Your task to perform on an android device: toggle improve location accuracy Image 0: 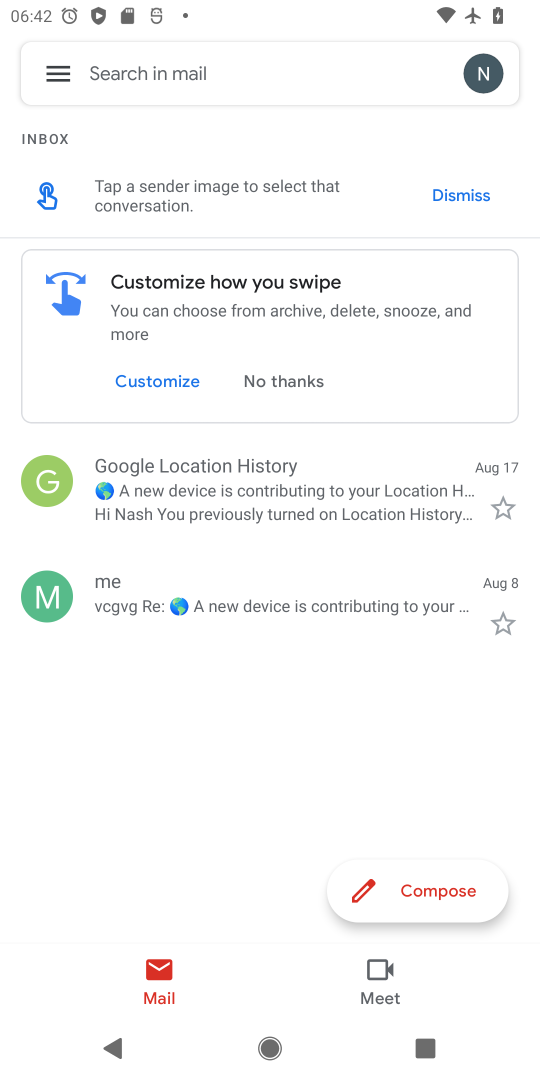
Step 0: press home button
Your task to perform on an android device: toggle improve location accuracy Image 1: 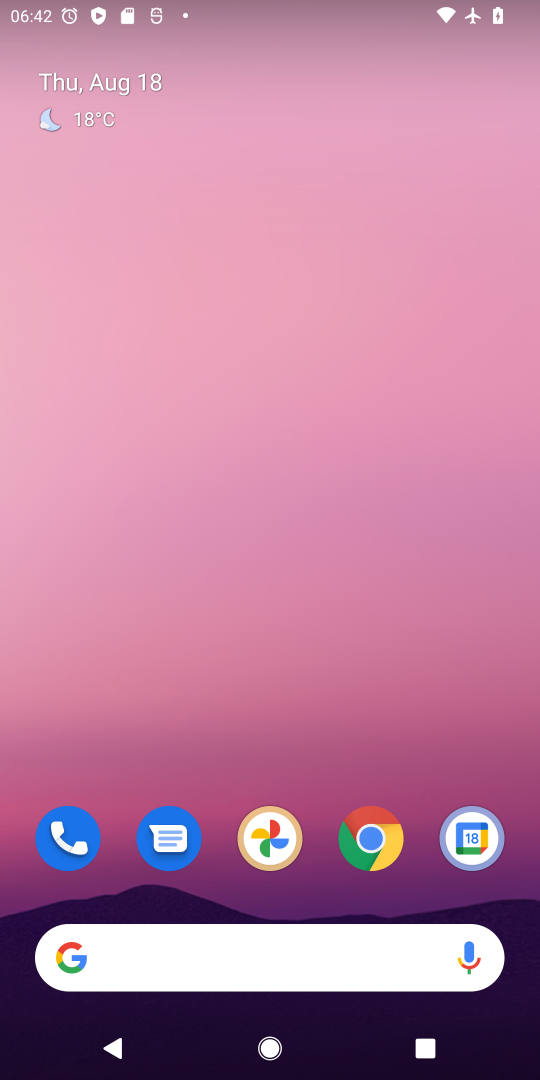
Step 1: drag from (342, 893) to (242, 42)
Your task to perform on an android device: toggle improve location accuracy Image 2: 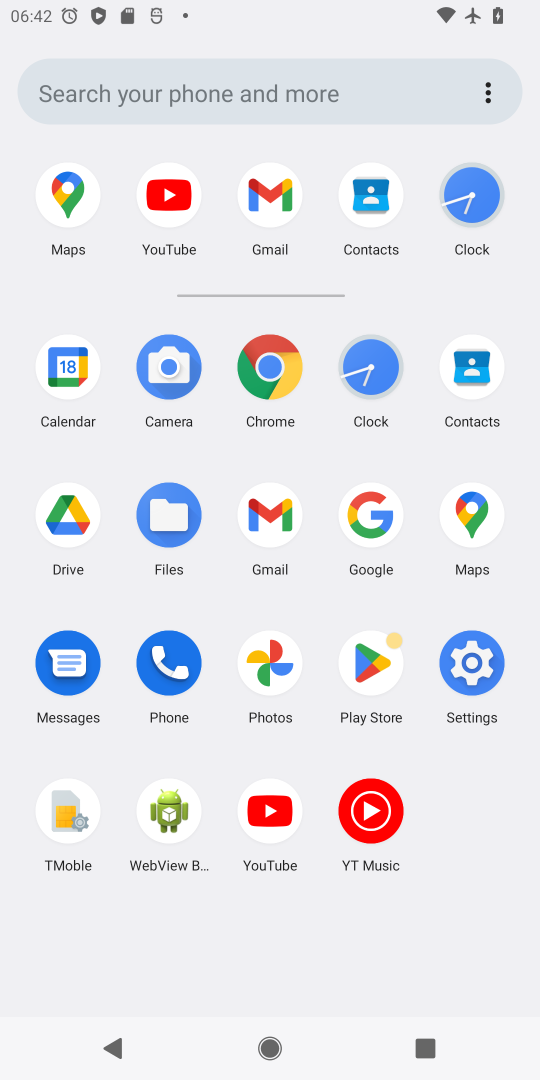
Step 2: click (472, 676)
Your task to perform on an android device: toggle improve location accuracy Image 3: 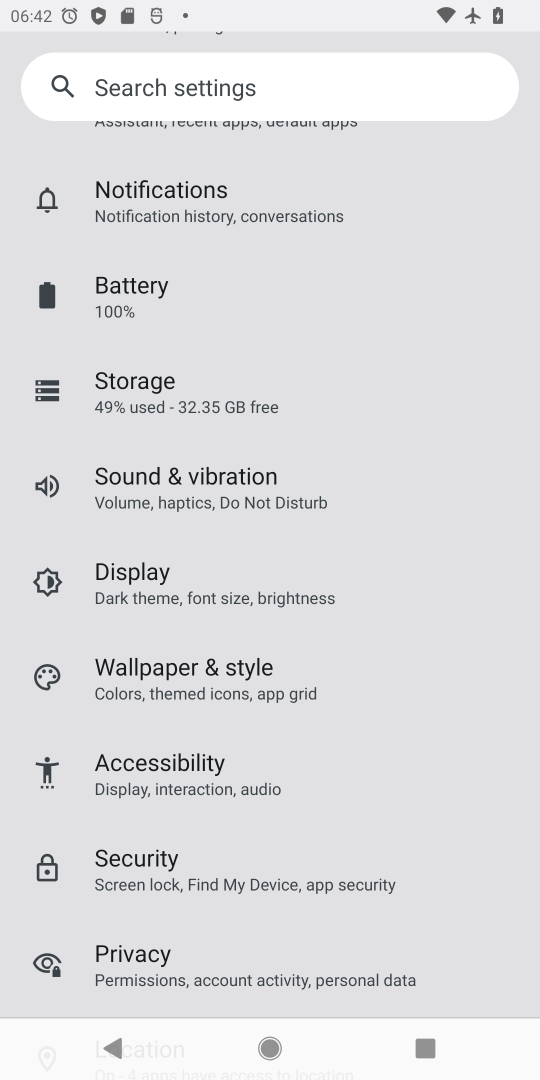
Step 3: drag from (419, 318) to (247, 215)
Your task to perform on an android device: toggle improve location accuracy Image 4: 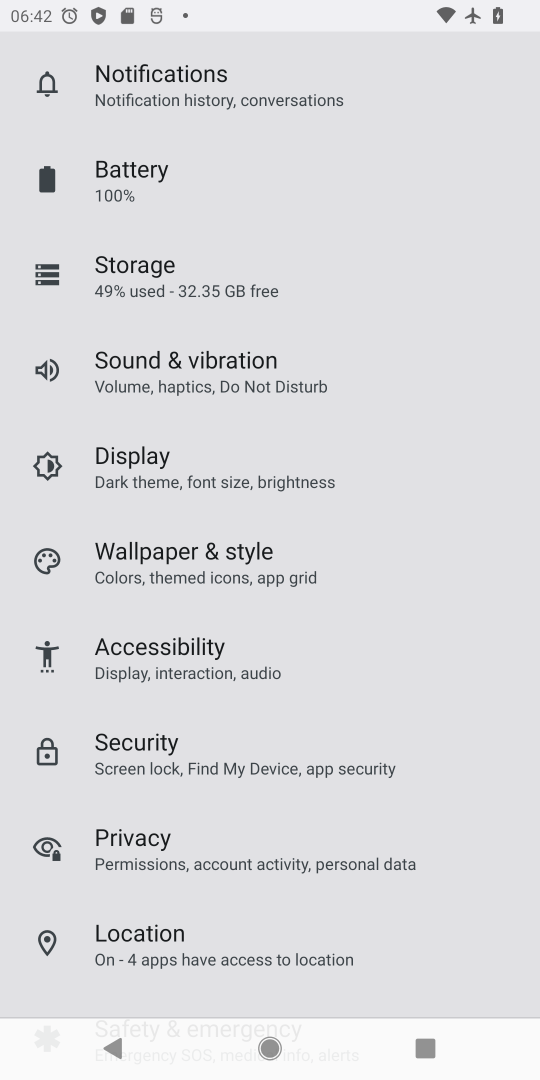
Step 4: click (135, 940)
Your task to perform on an android device: toggle improve location accuracy Image 5: 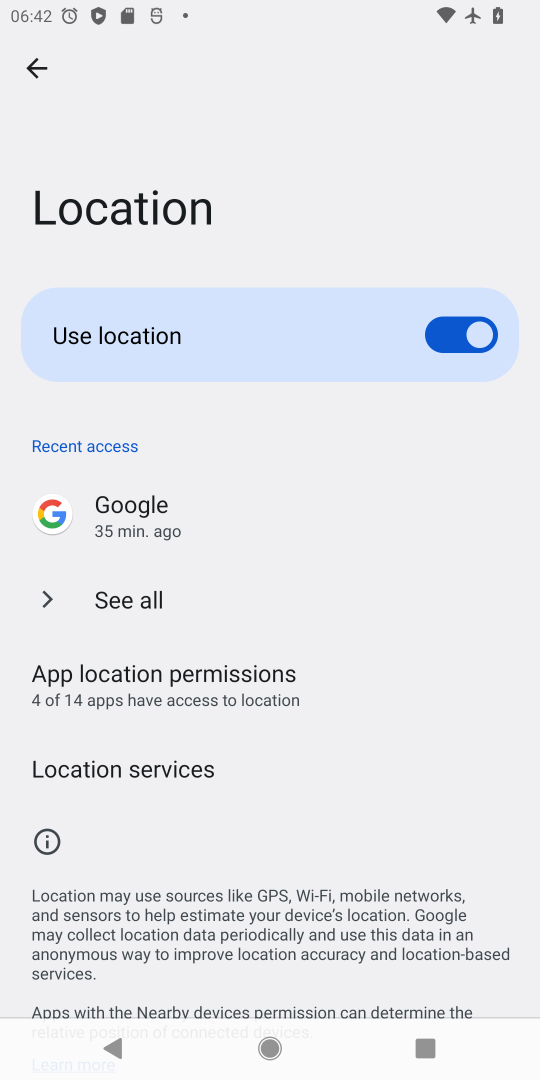
Step 5: click (117, 769)
Your task to perform on an android device: toggle improve location accuracy Image 6: 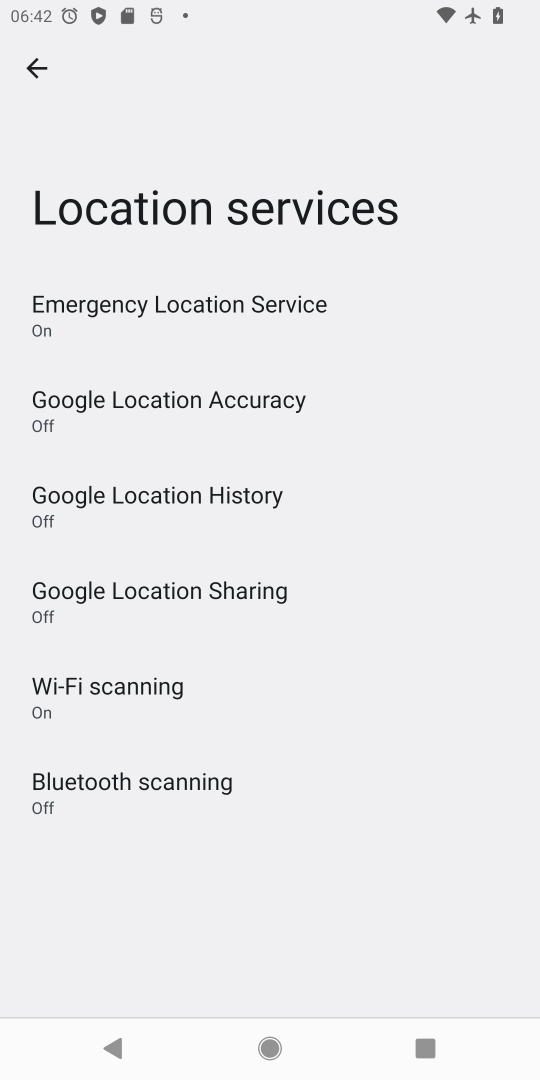
Step 6: click (180, 413)
Your task to perform on an android device: toggle improve location accuracy Image 7: 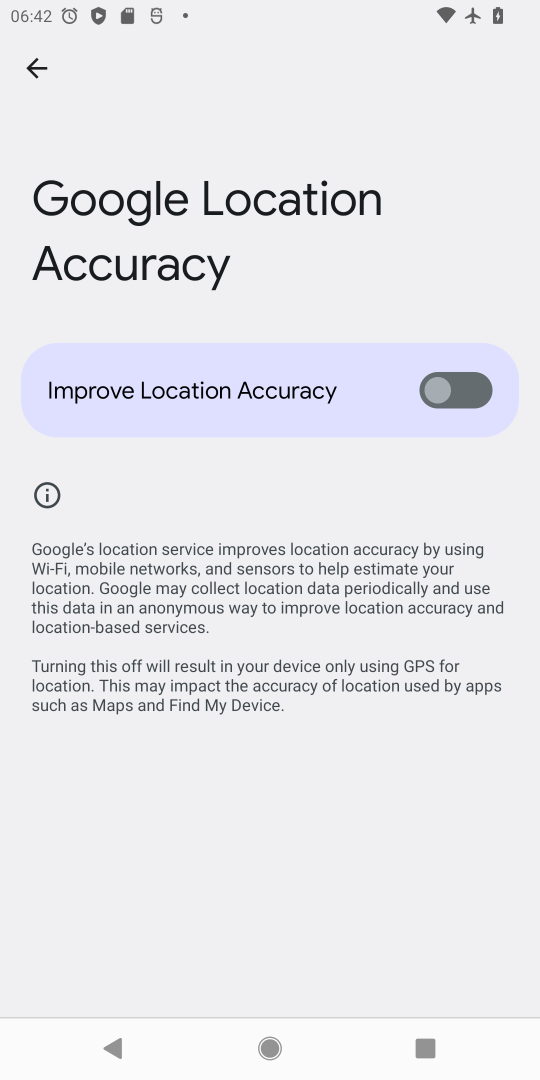
Step 7: click (440, 392)
Your task to perform on an android device: toggle improve location accuracy Image 8: 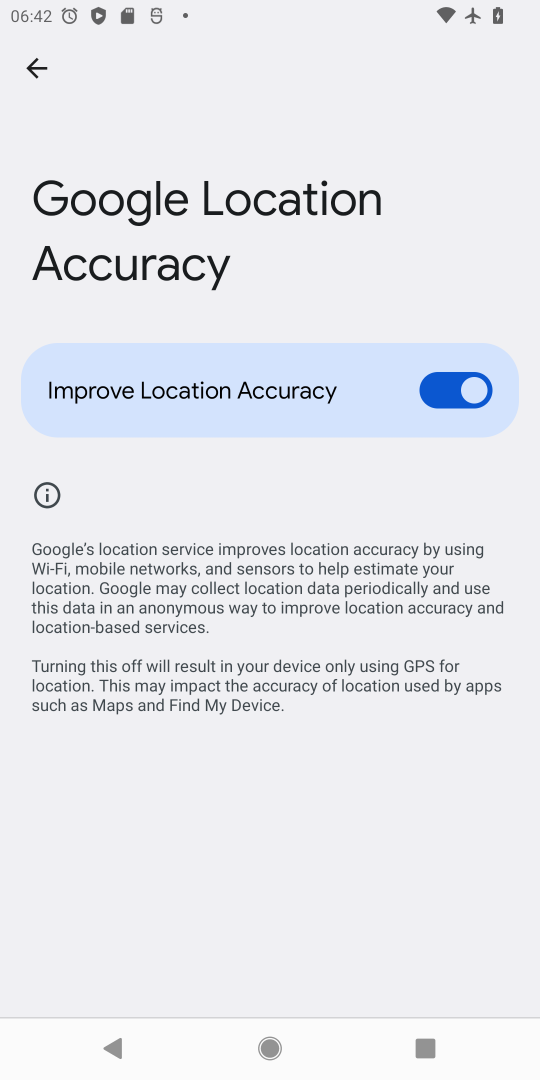
Step 8: task complete